Your task to perform on an android device: set default search engine in the chrome app Image 0: 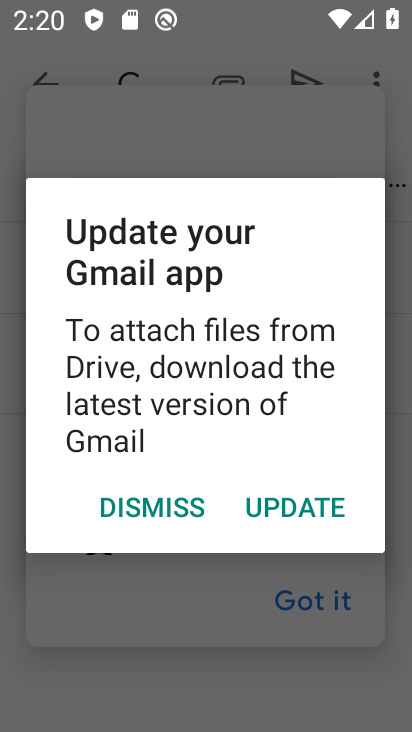
Step 0: press home button
Your task to perform on an android device: set default search engine in the chrome app Image 1: 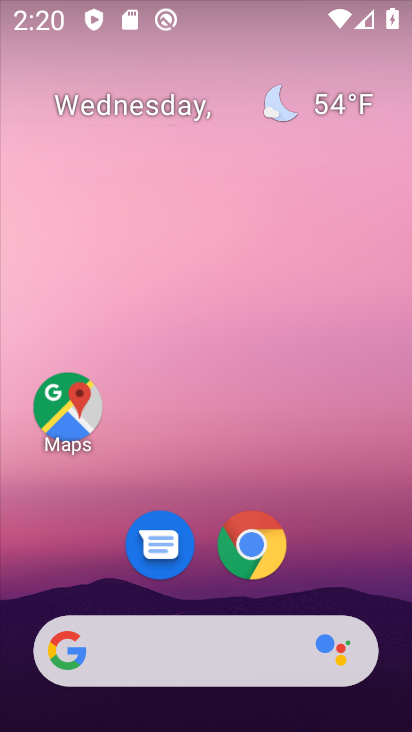
Step 1: click (263, 545)
Your task to perform on an android device: set default search engine in the chrome app Image 2: 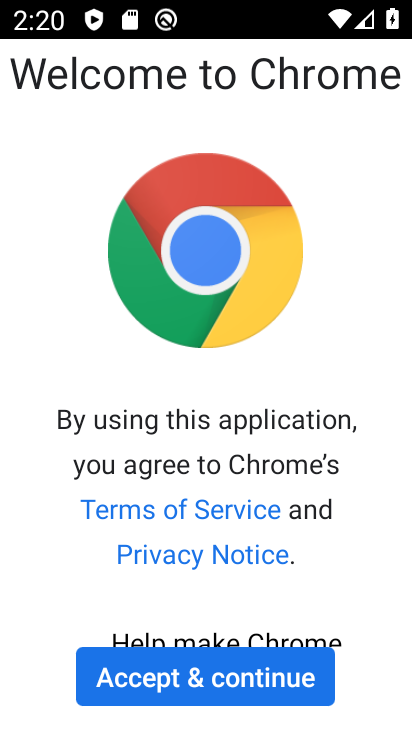
Step 2: click (247, 667)
Your task to perform on an android device: set default search engine in the chrome app Image 3: 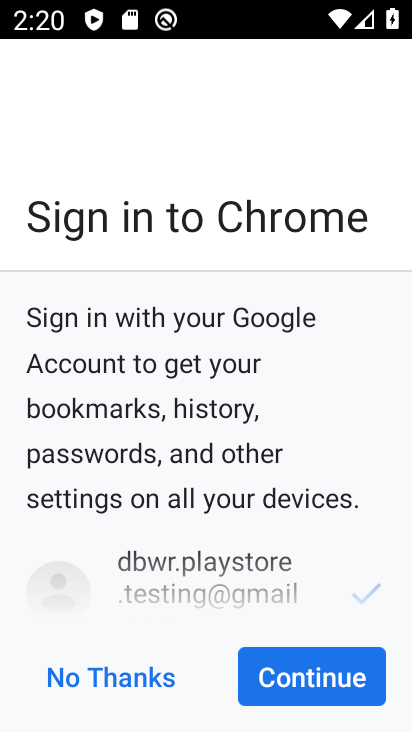
Step 3: click (320, 684)
Your task to perform on an android device: set default search engine in the chrome app Image 4: 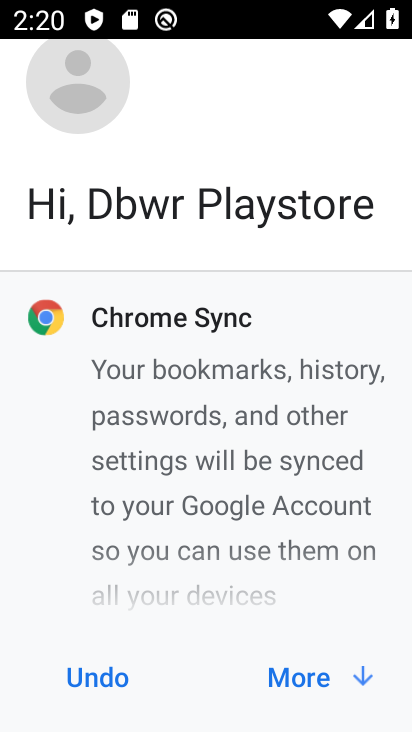
Step 4: click (310, 663)
Your task to perform on an android device: set default search engine in the chrome app Image 5: 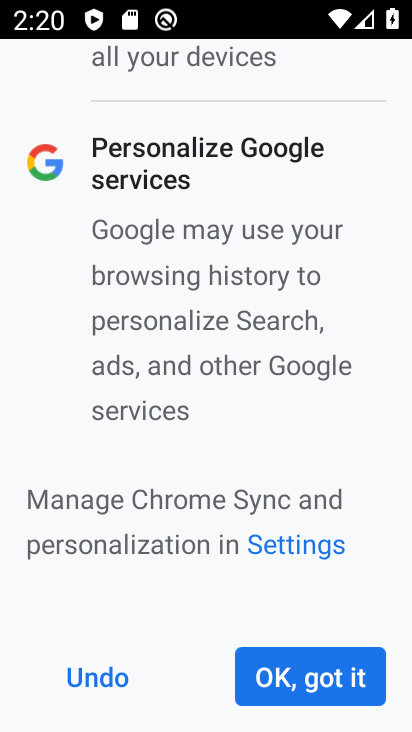
Step 5: click (313, 663)
Your task to perform on an android device: set default search engine in the chrome app Image 6: 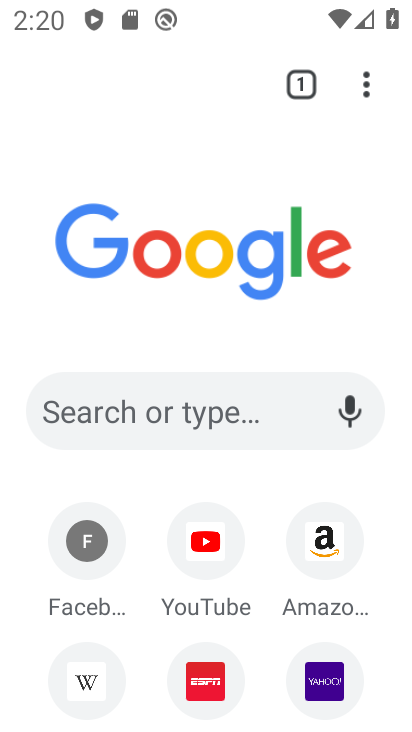
Step 6: click (379, 74)
Your task to perform on an android device: set default search engine in the chrome app Image 7: 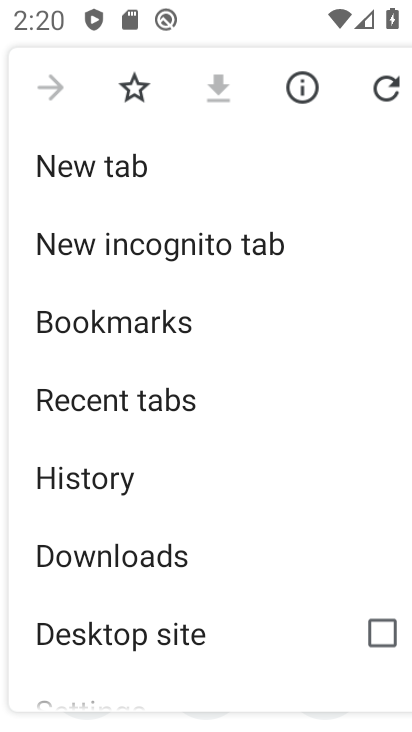
Step 7: drag from (300, 544) to (253, 110)
Your task to perform on an android device: set default search engine in the chrome app Image 8: 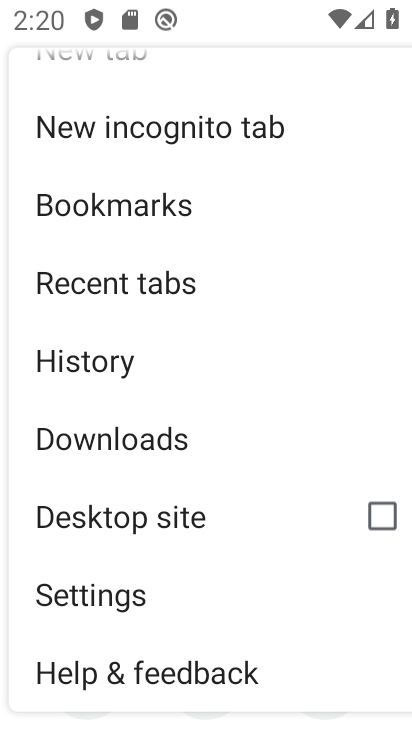
Step 8: click (175, 577)
Your task to perform on an android device: set default search engine in the chrome app Image 9: 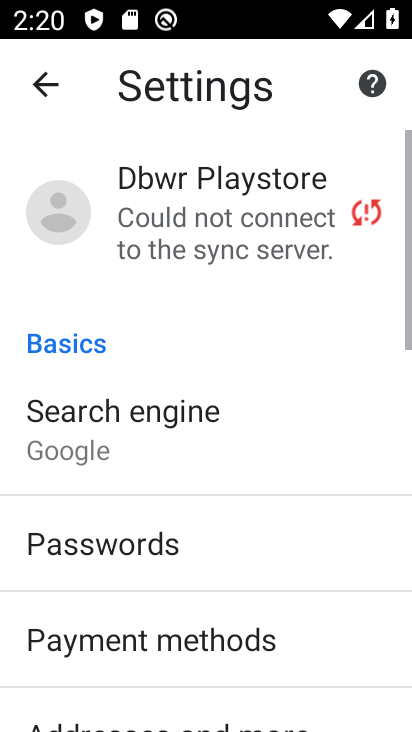
Step 9: drag from (175, 577) to (208, 105)
Your task to perform on an android device: set default search engine in the chrome app Image 10: 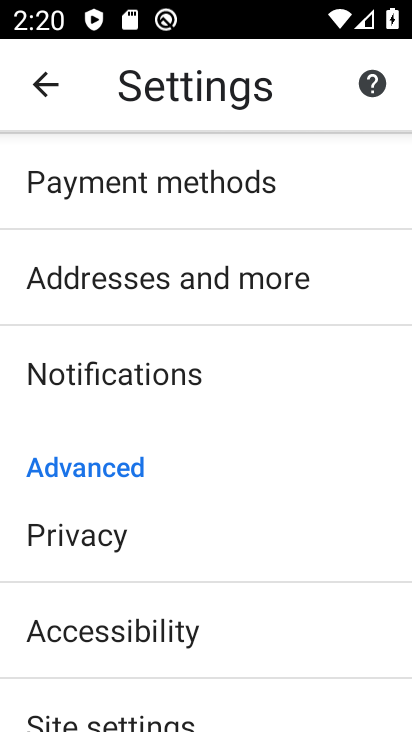
Step 10: drag from (191, 513) to (228, 173)
Your task to perform on an android device: set default search engine in the chrome app Image 11: 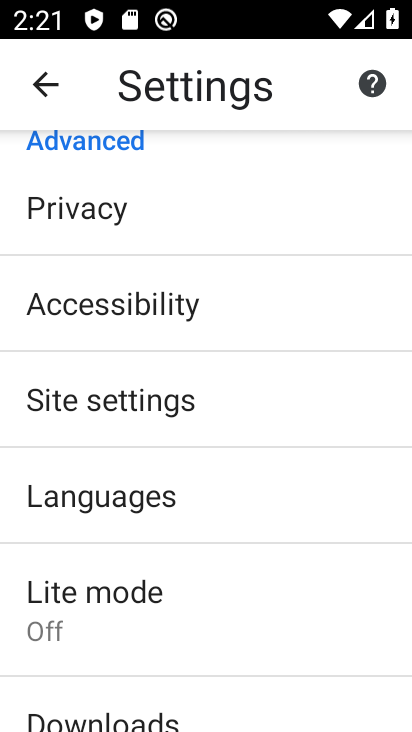
Step 11: click (307, 233)
Your task to perform on an android device: set default search engine in the chrome app Image 12: 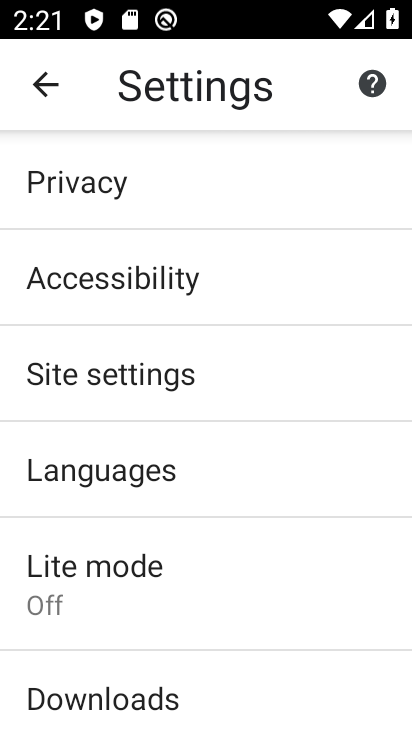
Step 12: drag from (210, 497) to (241, 159)
Your task to perform on an android device: set default search engine in the chrome app Image 13: 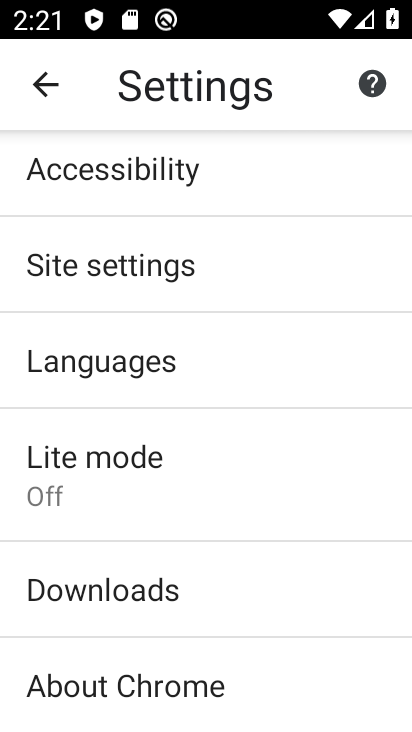
Step 13: drag from (258, 445) to (266, 169)
Your task to perform on an android device: set default search engine in the chrome app Image 14: 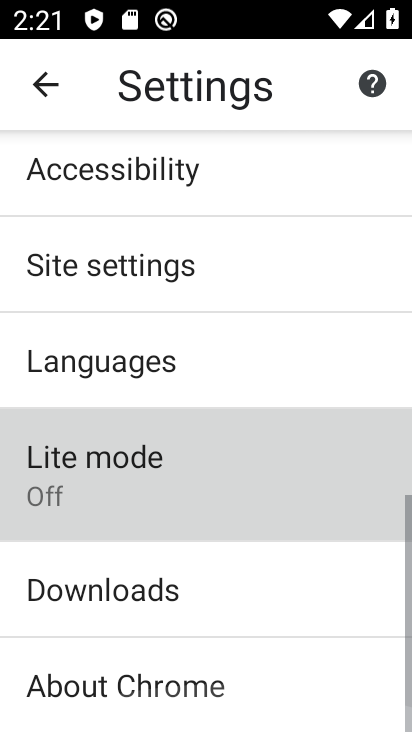
Step 14: drag from (271, 157) to (260, 605)
Your task to perform on an android device: set default search engine in the chrome app Image 15: 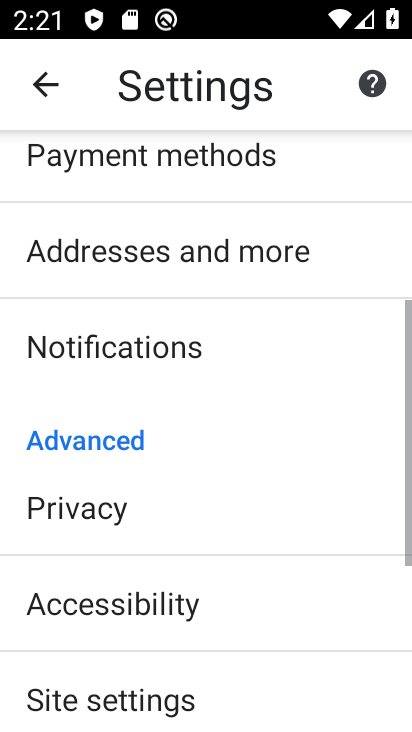
Step 15: click (300, 581)
Your task to perform on an android device: set default search engine in the chrome app Image 16: 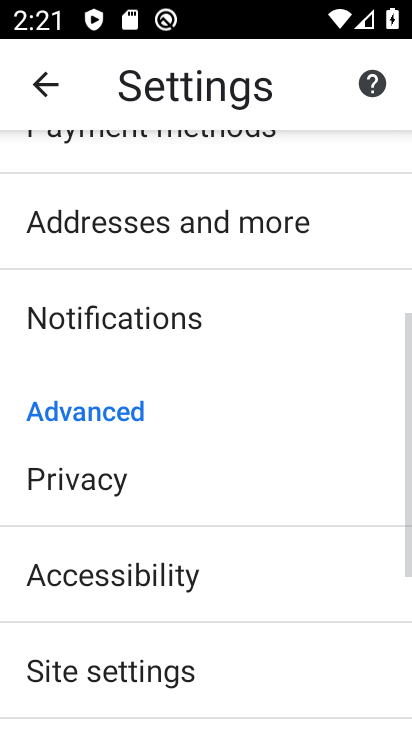
Step 16: drag from (347, 261) to (320, 572)
Your task to perform on an android device: set default search engine in the chrome app Image 17: 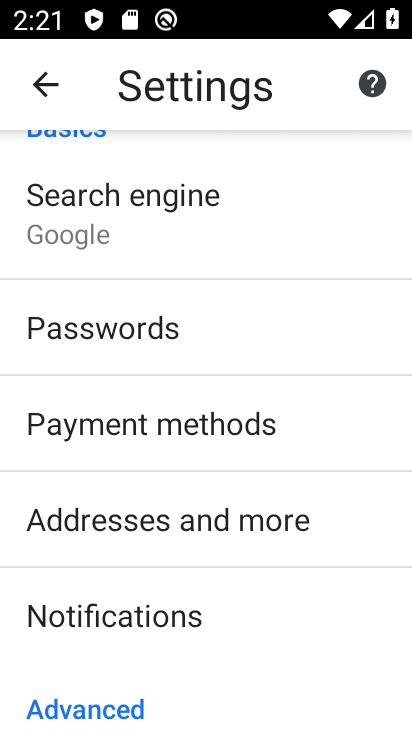
Step 17: click (273, 191)
Your task to perform on an android device: set default search engine in the chrome app Image 18: 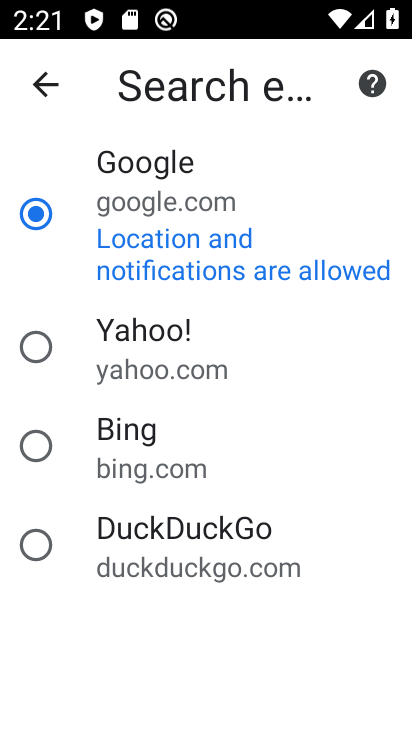
Step 18: task complete